Your task to perform on an android device: Open location settings Image 0: 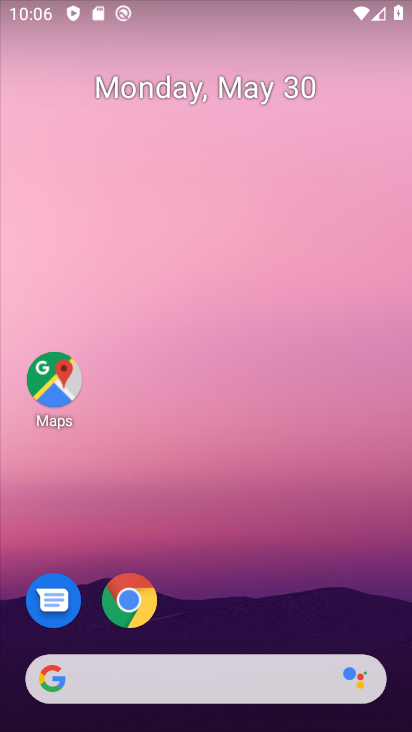
Step 0: drag from (242, 642) to (346, 150)
Your task to perform on an android device: Open location settings Image 1: 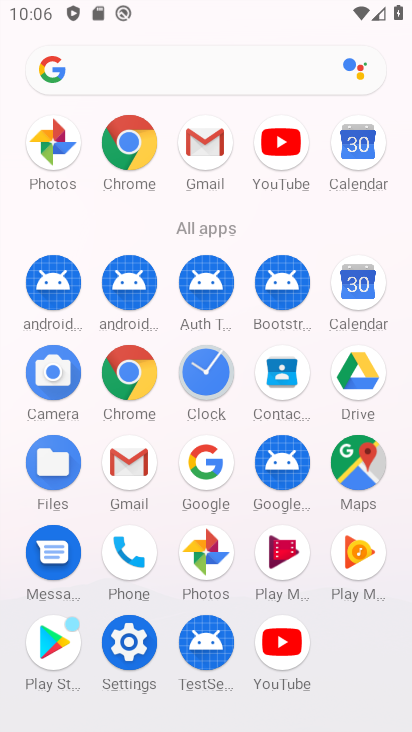
Step 1: drag from (162, 612) to (191, 436)
Your task to perform on an android device: Open location settings Image 2: 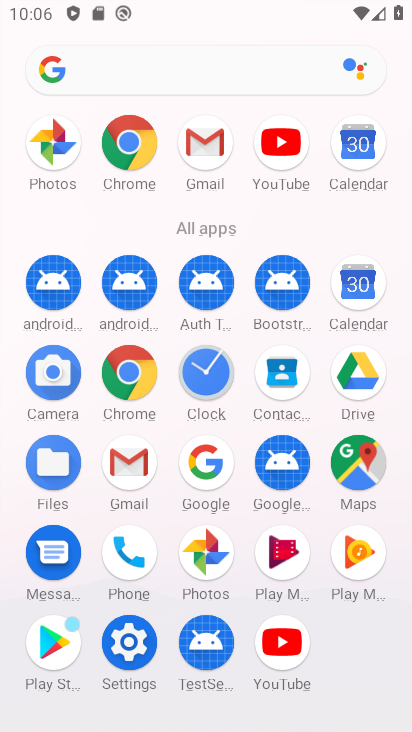
Step 2: click (126, 643)
Your task to perform on an android device: Open location settings Image 3: 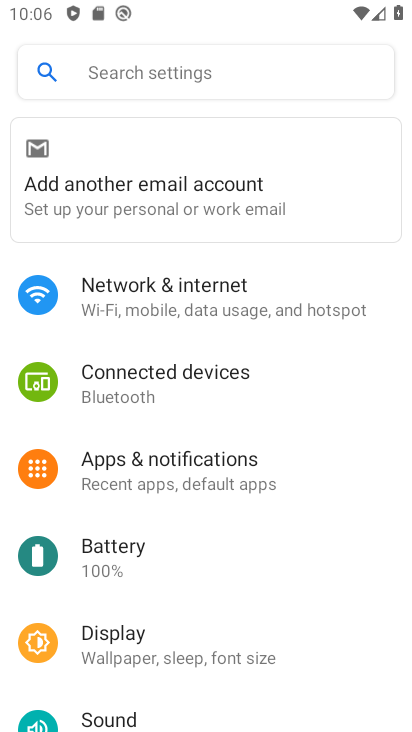
Step 3: drag from (174, 653) to (260, 345)
Your task to perform on an android device: Open location settings Image 4: 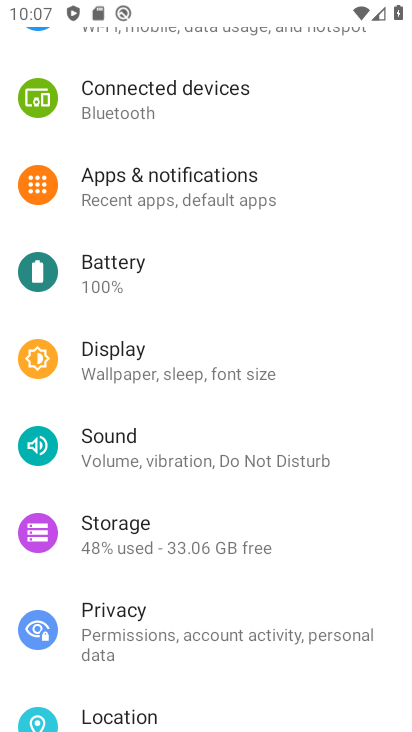
Step 4: drag from (153, 668) to (258, 311)
Your task to perform on an android device: Open location settings Image 5: 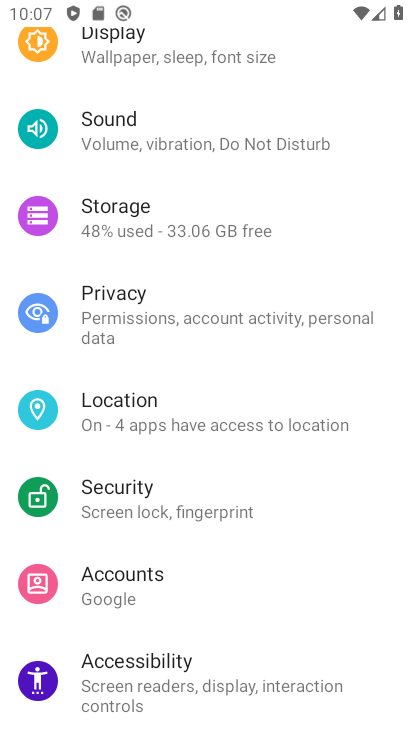
Step 5: click (167, 435)
Your task to perform on an android device: Open location settings Image 6: 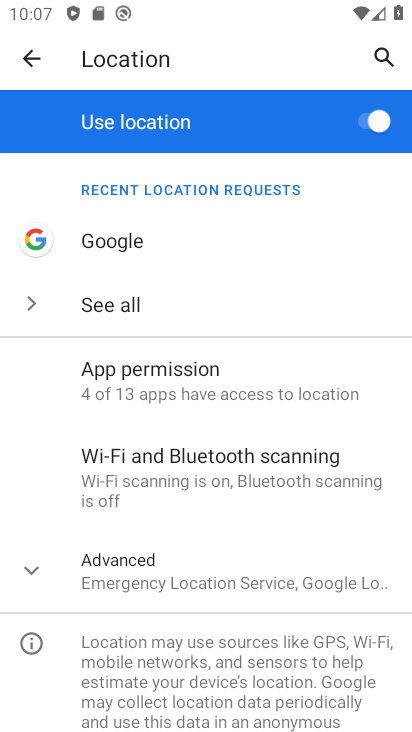
Step 6: task complete